Your task to perform on an android device: Open ESPN.com Image 0: 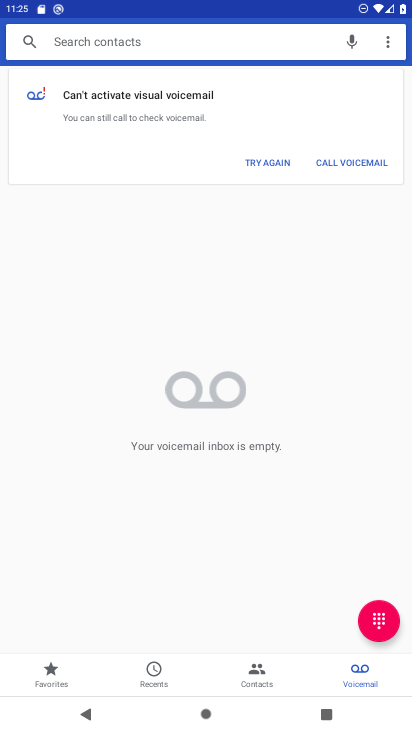
Step 0: press back button
Your task to perform on an android device: Open ESPN.com Image 1: 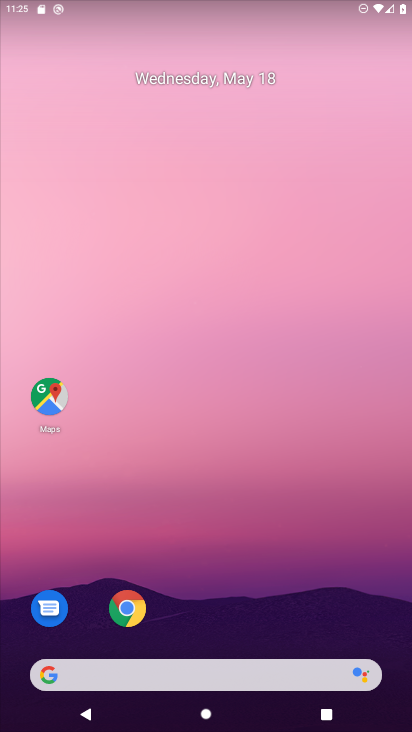
Step 1: click (124, 604)
Your task to perform on an android device: Open ESPN.com Image 2: 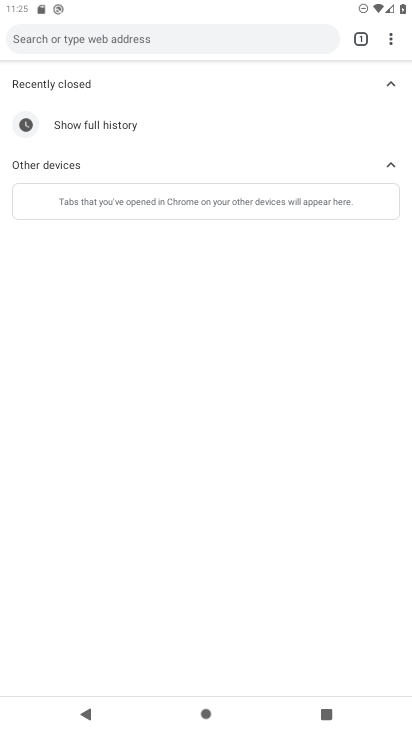
Step 2: click (173, 37)
Your task to perform on an android device: Open ESPN.com Image 3: 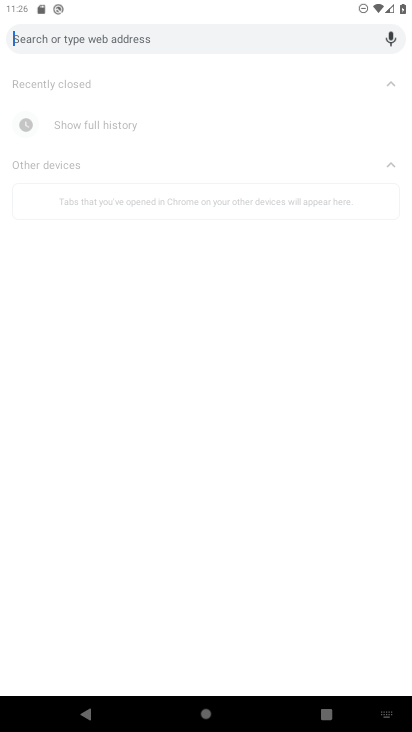
Step 3: type "ESPN.com"
Your task to perform on an android device: Open ESPN.com Image 4: 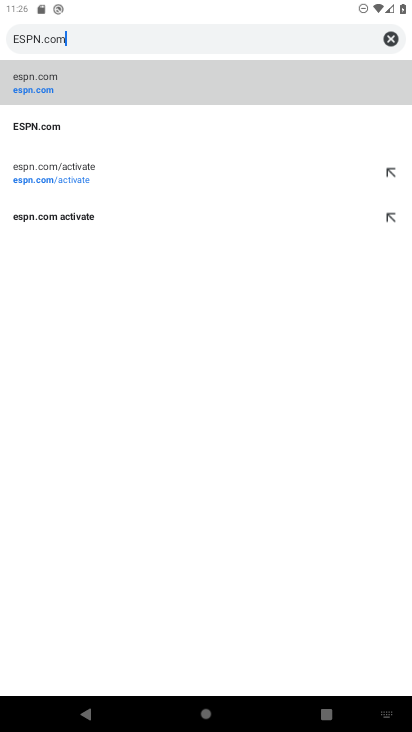
Step 4: click (63, 127)
Your task to perform on an android device: Open ESPN.com Image 5: 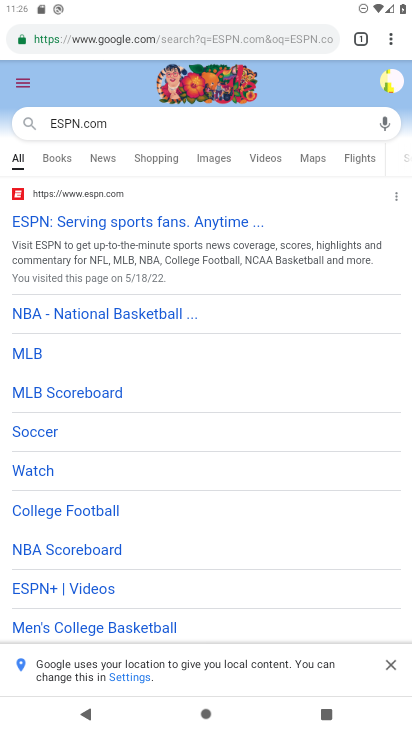
Step 5: click (95, 221)
Your task to perform on an android device: Open ESPN.com Image 6: 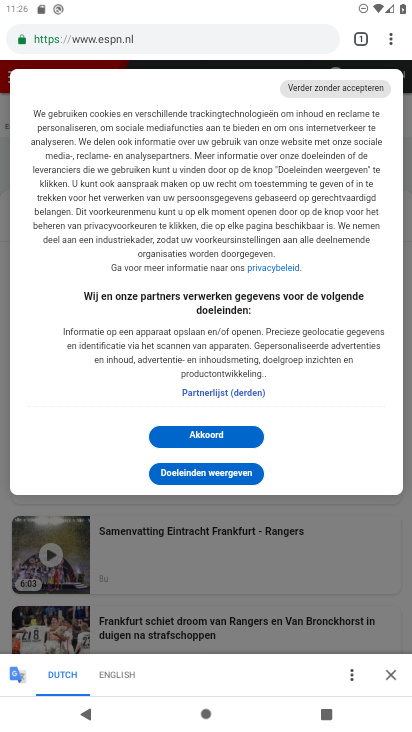
Step 6: task complete